Your task to perform on an android device: check out phone information Image 0: 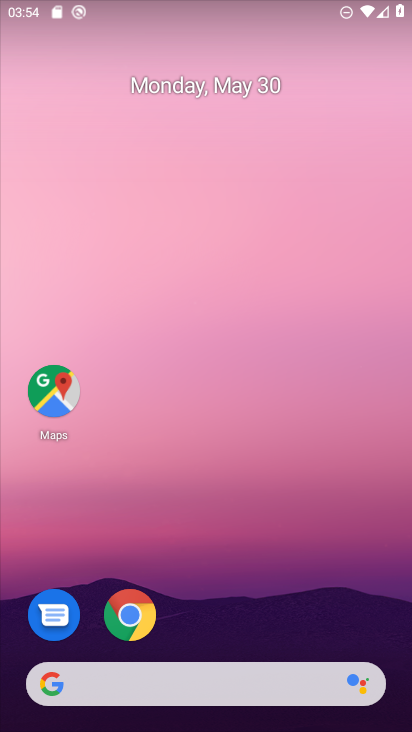
Step 0: drag from (287, 594) to (203, 100)
Your task to perform on an android device: check out phone information Image 1: 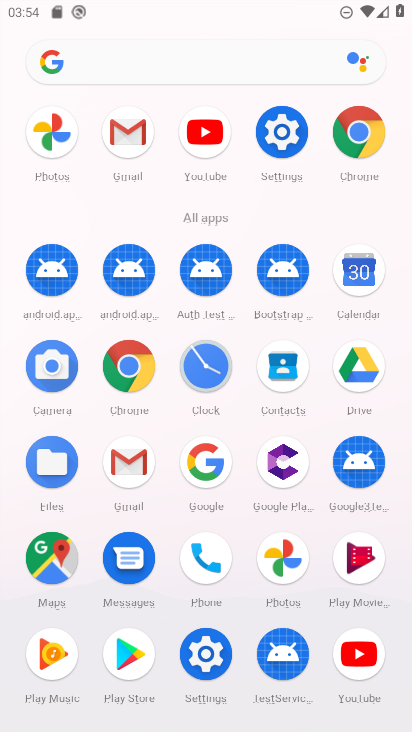
Step 1: click (281, 133)
Your task to perform on an android device: check out phone information Image 2: 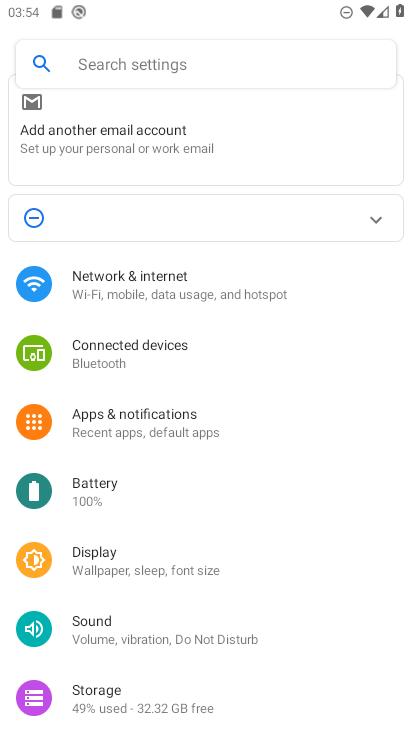
Step 2: drag from (141, 477) to (145, 365)
Your task to perform on an android device: check out phone information Image 3: 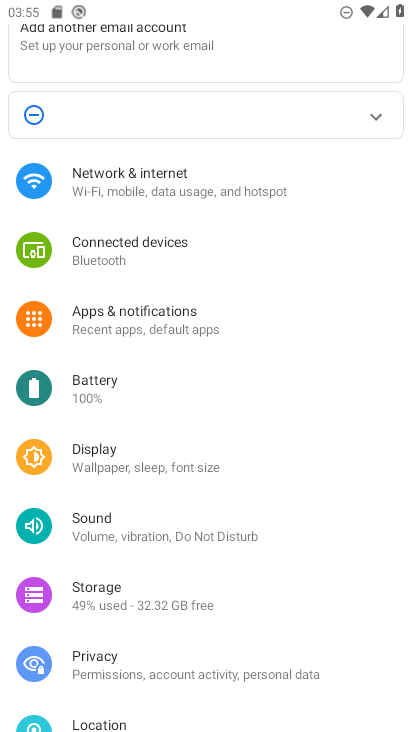
Step 3: drag from (158, 575) to (180, 414)
Your task to perform on an android device: check out phone information Image 4: 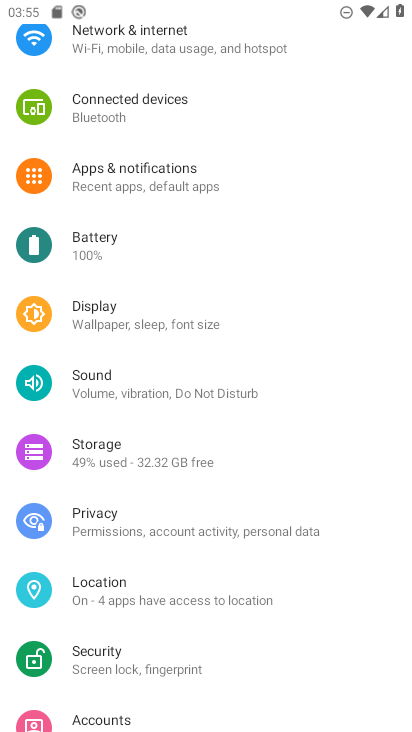
Step 4: drag from (155, 620) to (191, 449)
Your task to perform on an android device: check out phone information Image 5: 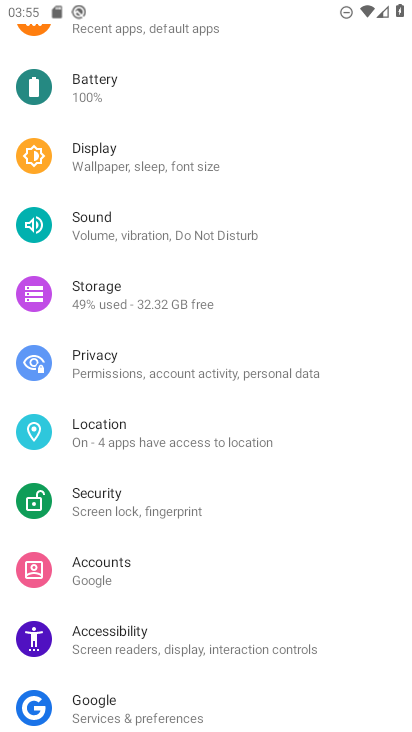
Step 5: drag from (149, 557) to (174, 428)
Your task to perform on an android device: check out phone information Image 6: 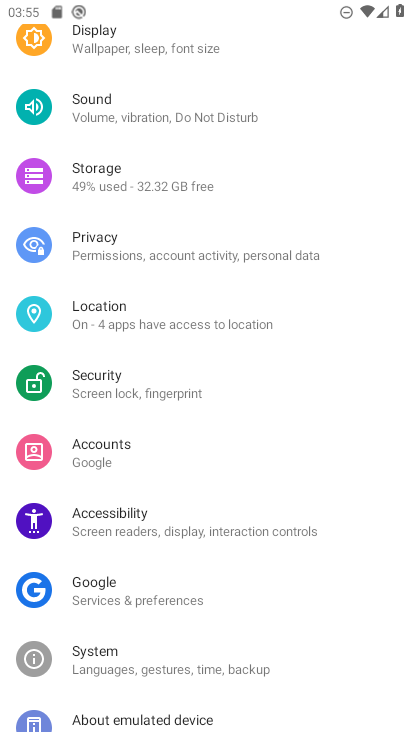
Step 6: drag from (170, 591) to (155, 541)
Your task to perform on an android device: check out phone information Image 7: 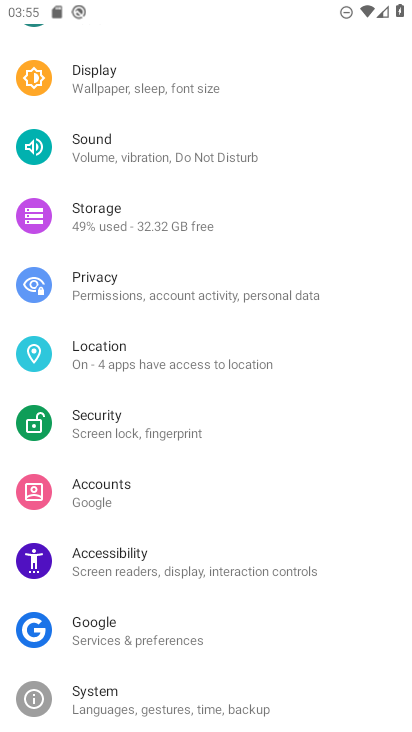
Step 7: drag from (153, 623) to (151, 496)
Your task to perform on an android device: check out phone information Image 8: 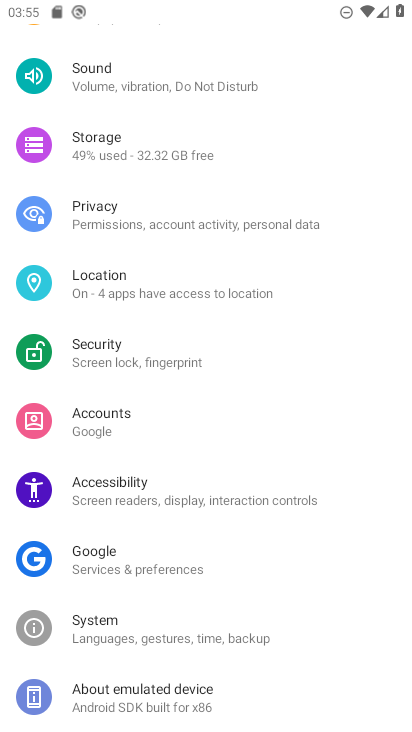
Step 8: click (153, 681)
Your task to perform on an android device: check out phone information Image 9: 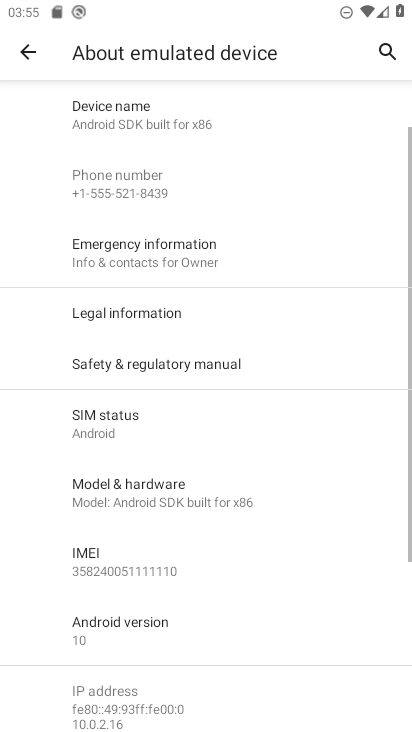
Step 9: task complete